Your task to perform on an android device: open app "Yahoo Mail" (install if not already installed) Image 0: 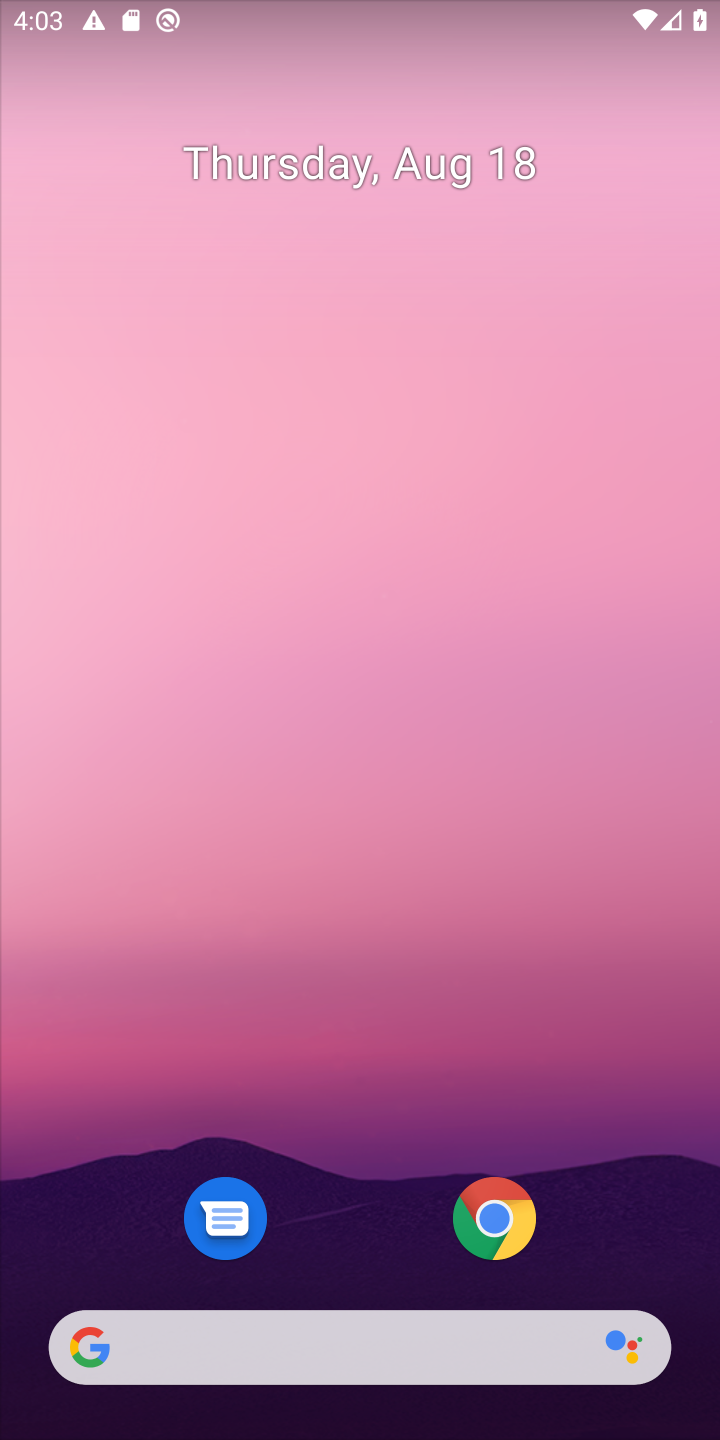
Step 0: drag from (303, 816) to (300, 292)
Your task to perform on an android device: open app "Yahoo Mail" (install if not already installed) Image 1: 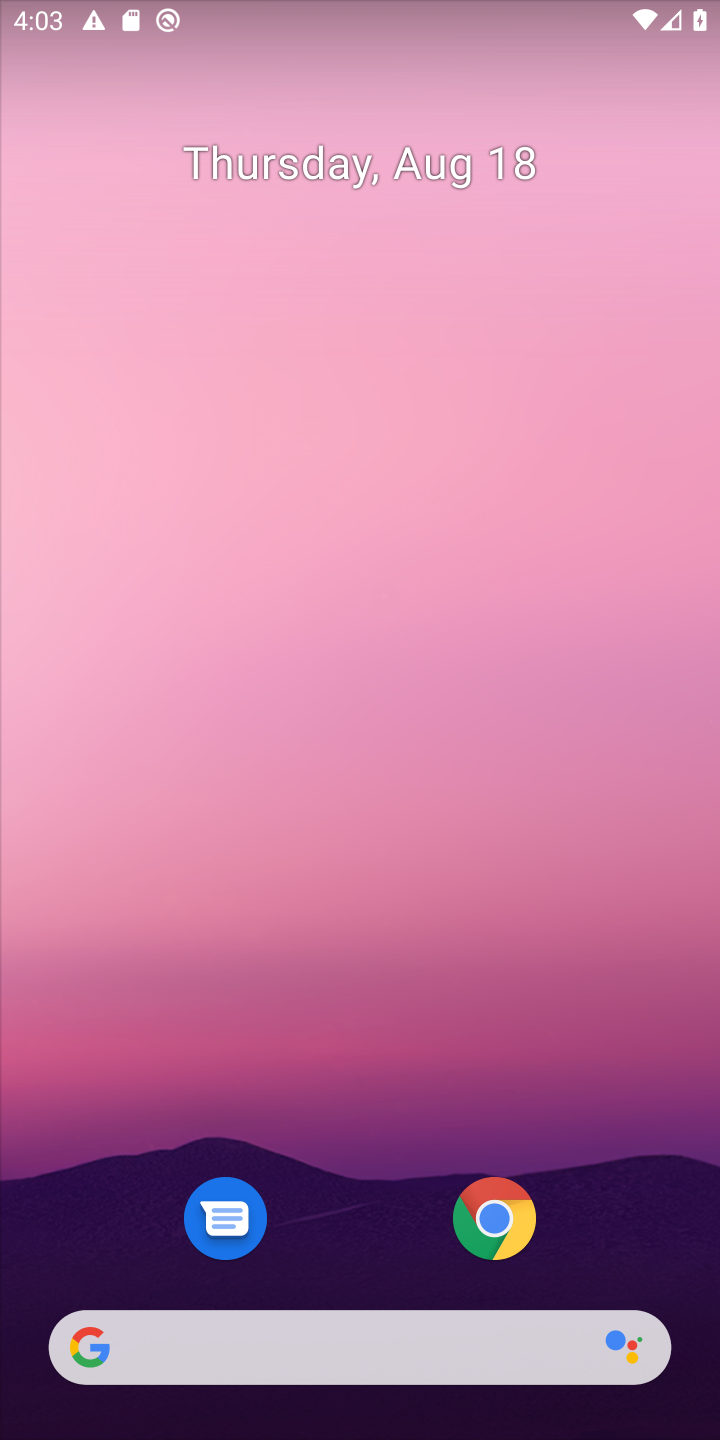
Step 1: drag from (352, 1150) to (365, 418)
Your task to perform on an android device: open app "Yahoo Mail" (install if not already installed) Image 2: 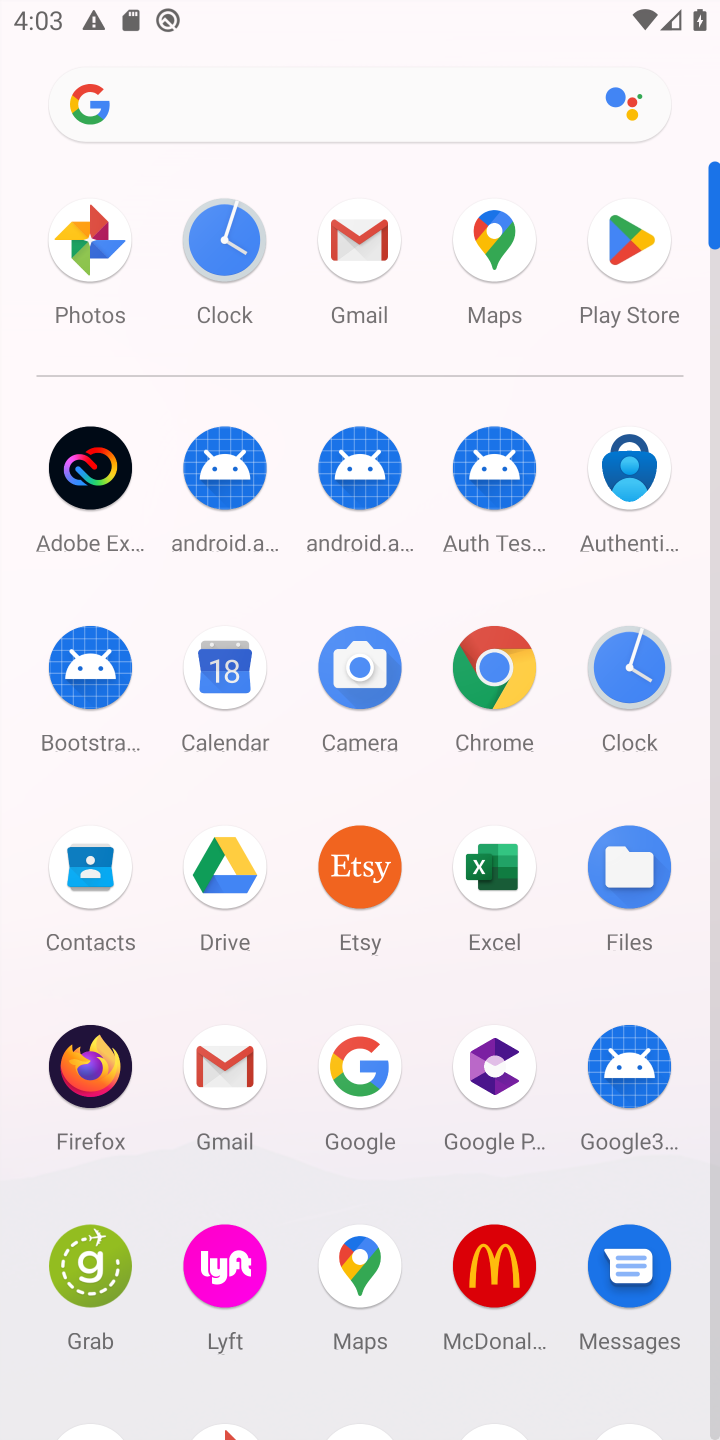
Step 2: click (605, 242)
Your task to perform on an android device: open app "Yahoo Mail" (install if not already installed) Image 3: 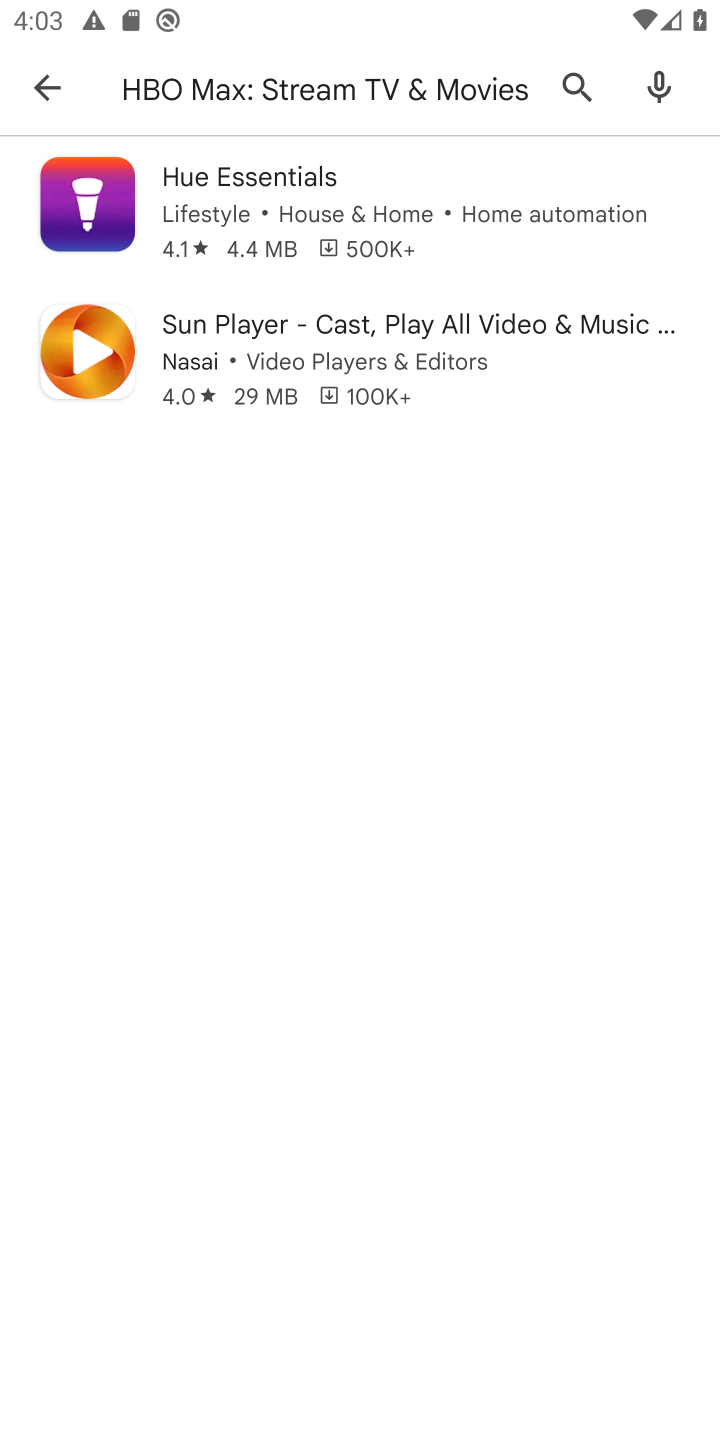
Step 3: click (562, 83)
Your task to perform on an android device: open app "Yahoo Mail" (install if not already installed) Image 4: 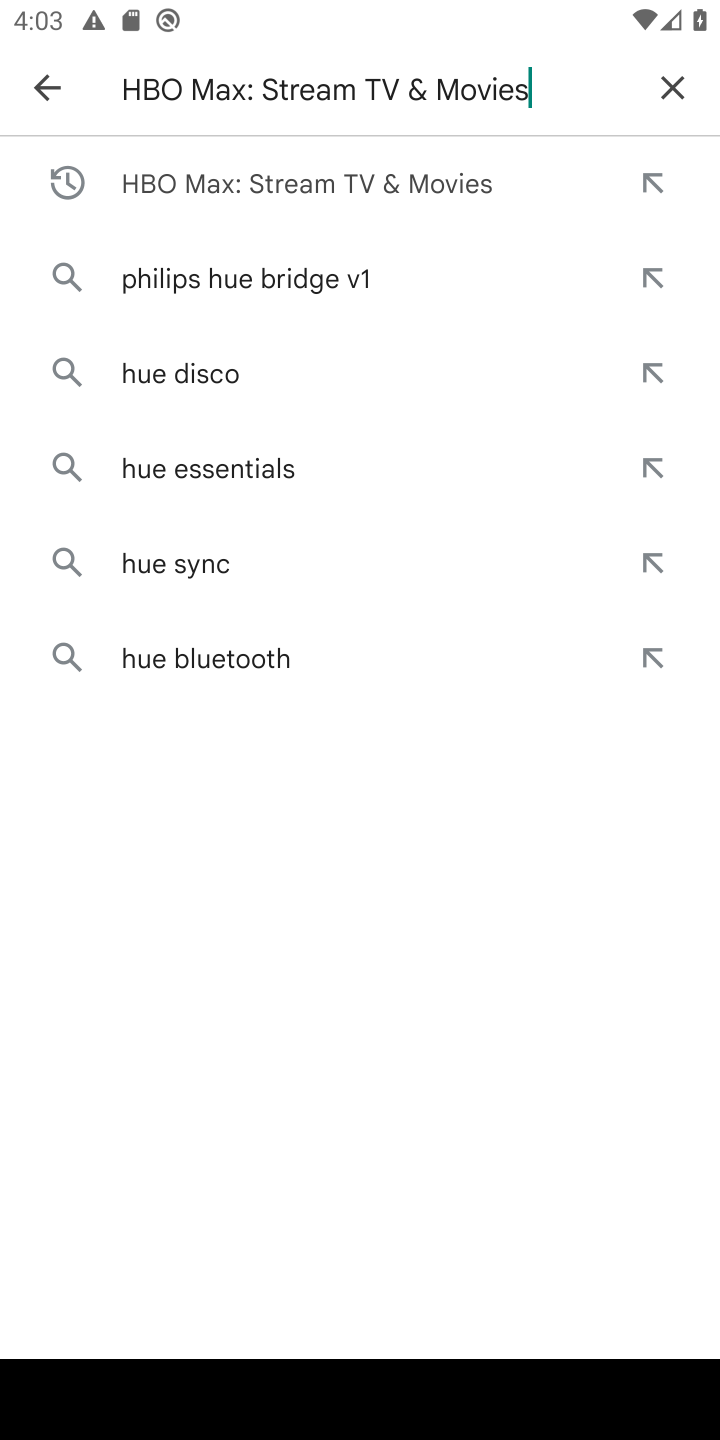
Step 4: click (650, 98)
Your task to perform on an android device: open app "Yahoo Mail" (install if not already installed) Image 5: 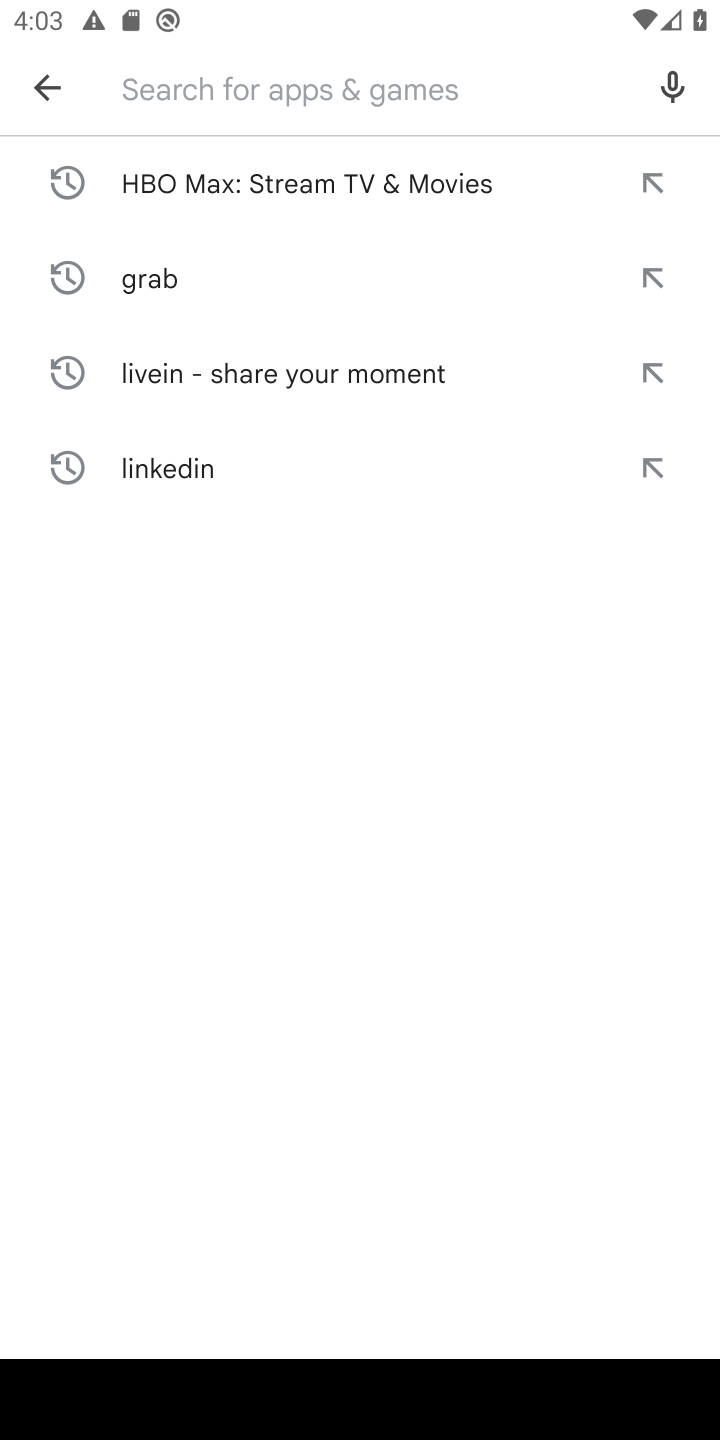
Step 5: type "Yahoo Mail"
Your task to perform on an android device: open app "Yahoo Mail" (install if not already installed) Image 6: 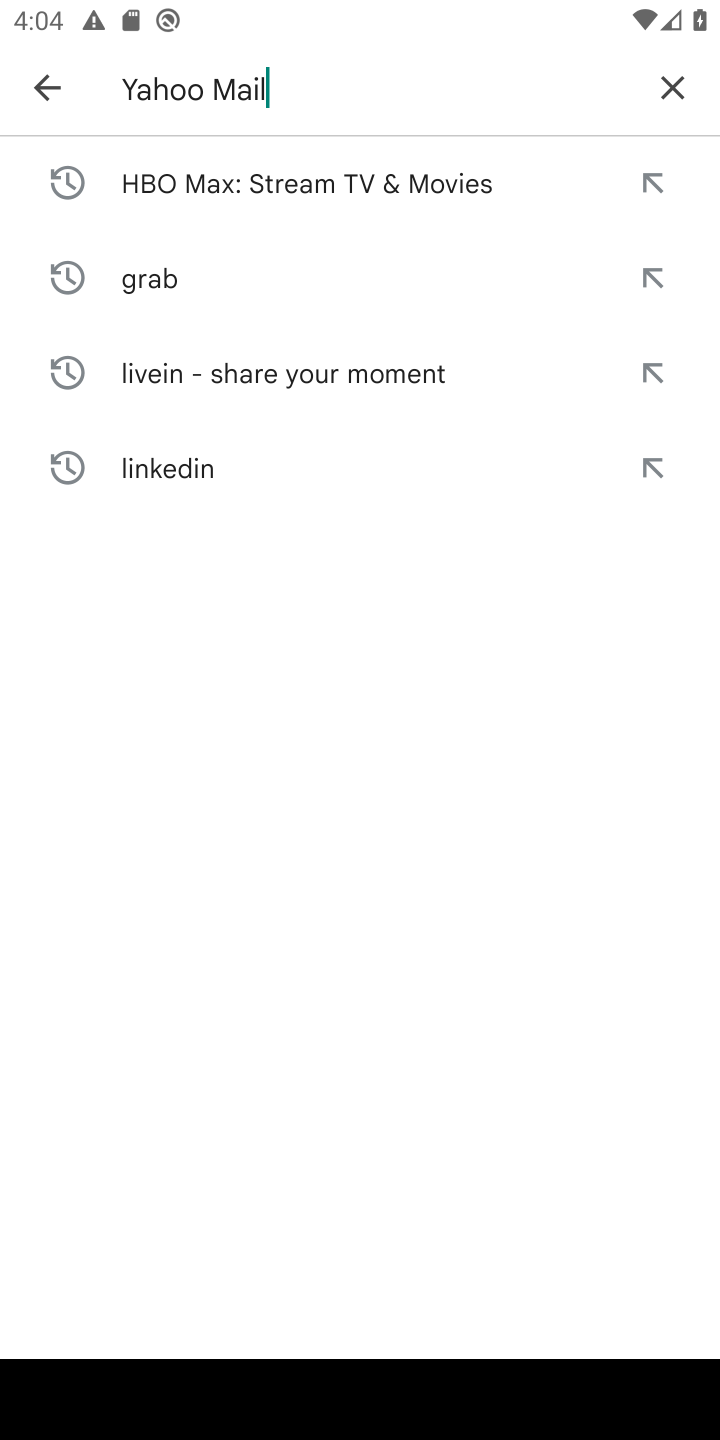
Step 6: type ""
Your task to perform on an android device: open app "Yahoo Mail" (install if not already installed) Image 7: 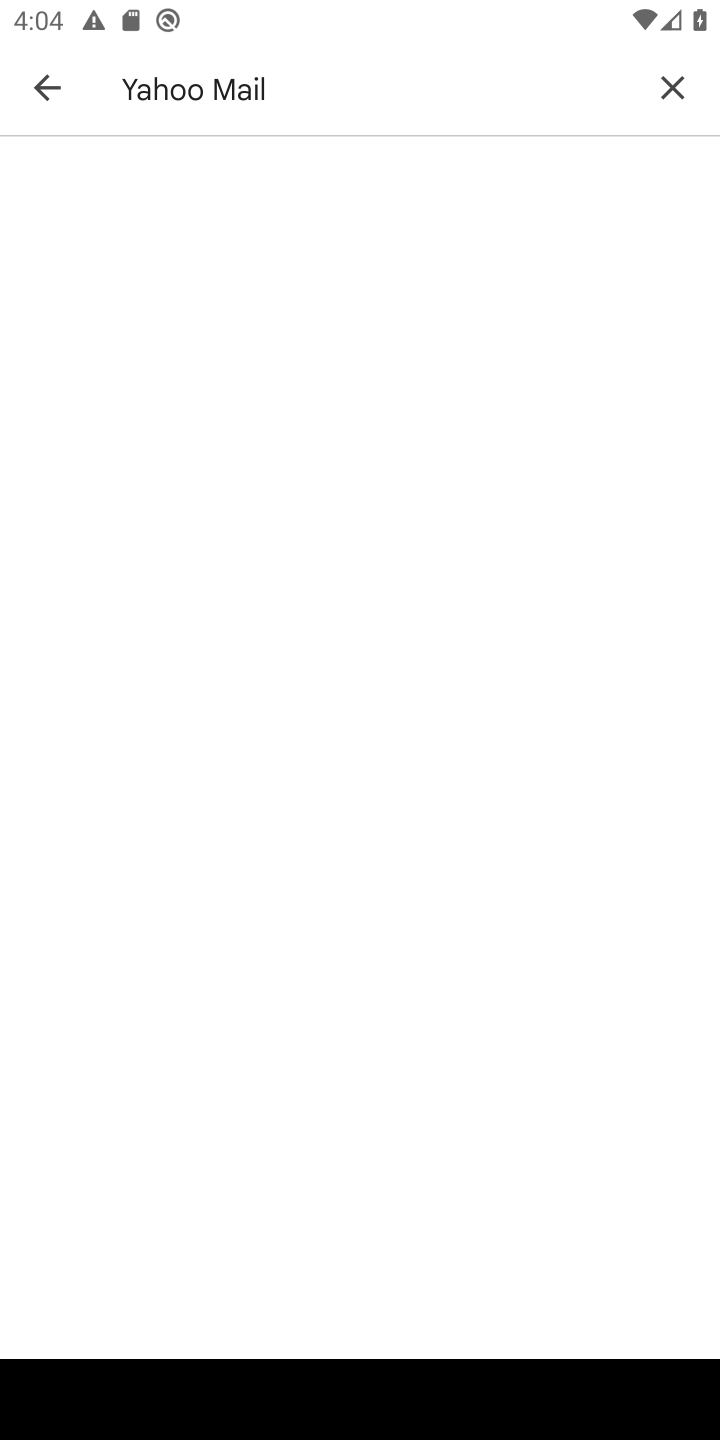
Step 7: task complete